Your task to perform on an android device: turn off translation in the chrome app Image 0: 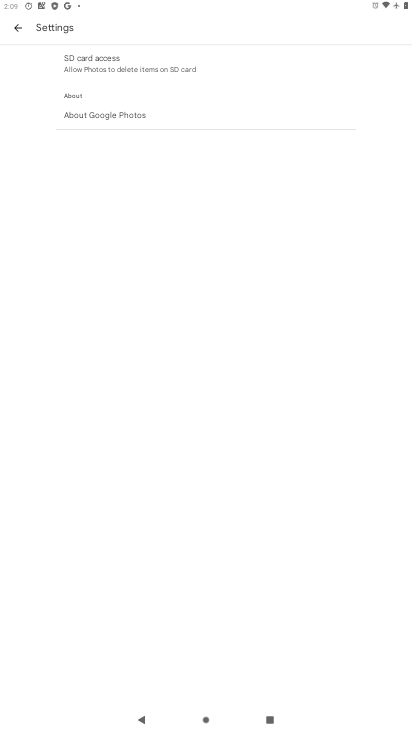
Step 0: press home button
Your task to perform on an android device: turn off translation in the chrome app Image 1: 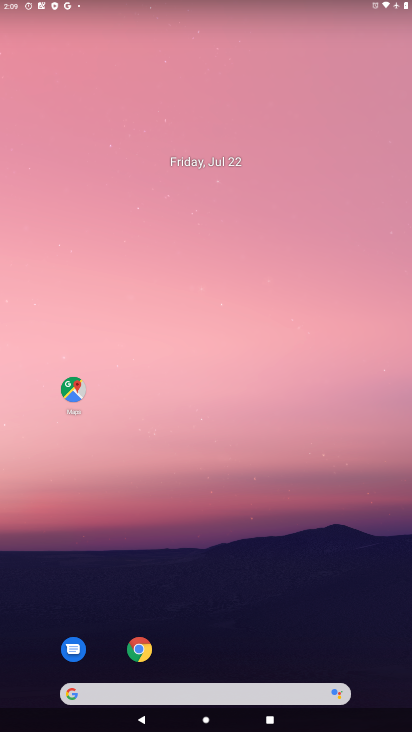
Step 1: drag from (279, 641) to (247, 69)
Your task to perform on an android device: turn off translation in the chrome app Image 2: 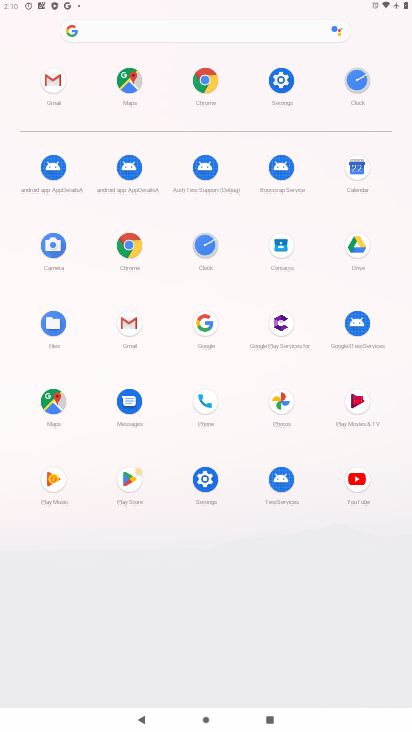
Step 2: click (203, 80)
Your task to perform on an android device: turn off translation in the chrome app Image 3: 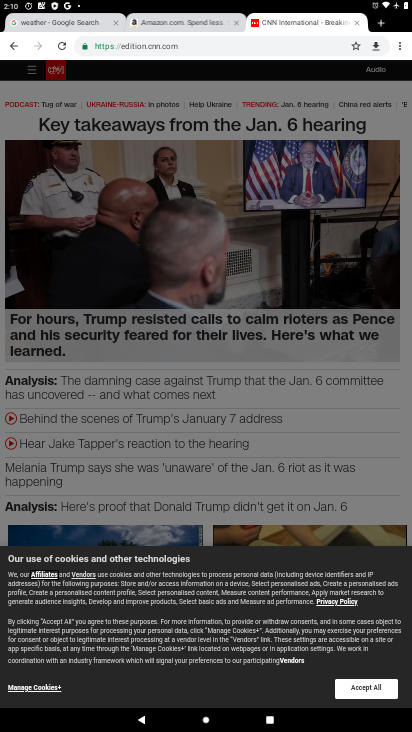
Step 3: drag from (399, 44) to (313, 311)
Your task to perform on an android device: turn off translation in the chrome app Image 4: 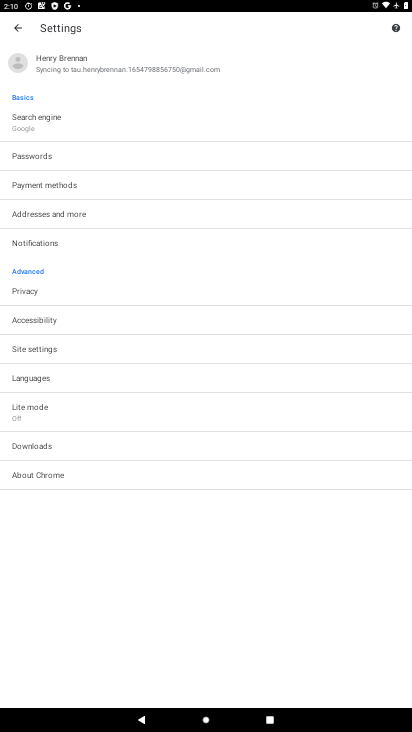
Step 4: click (48, 384)
Your task to perform on an android device: turn off translation in the chrome app Image 5: 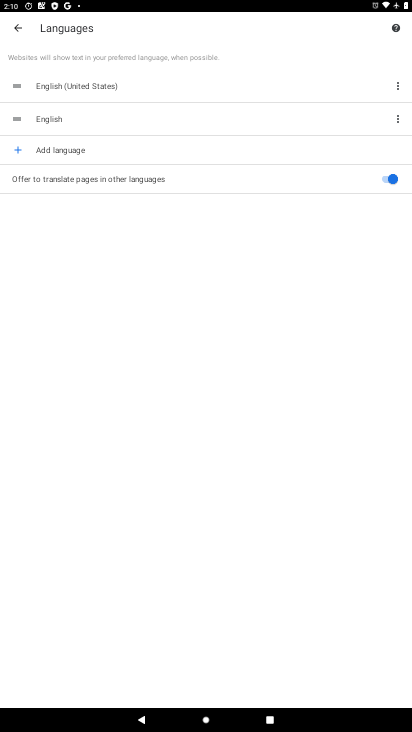
Step 5: click (393, 165)
Your task to perform on an android device: turn off translation in the chrome app Image 6: 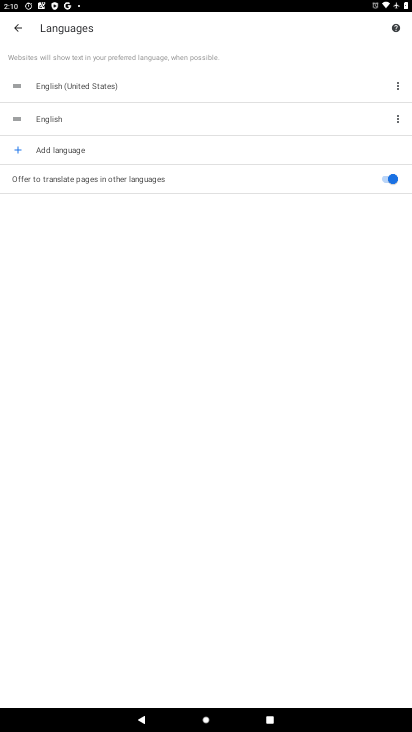
Step 6: click (400, 173)
Your task to perform on an android device: turn off translation in the chrome app Image 7: 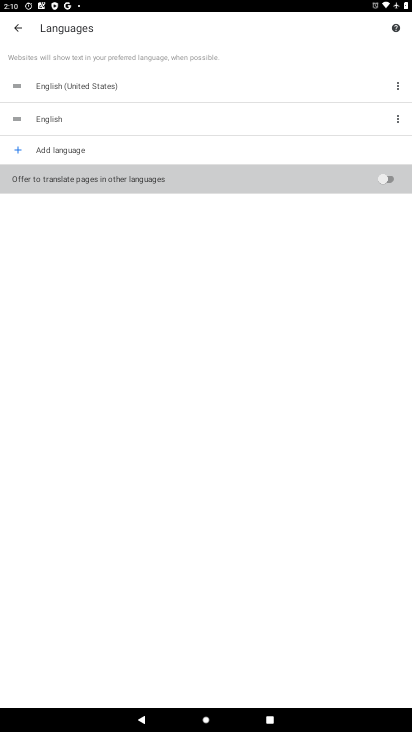
Step 7: click (393, 176)
Your task to perform on an android device: turn off translation in the chrome app Image 8: 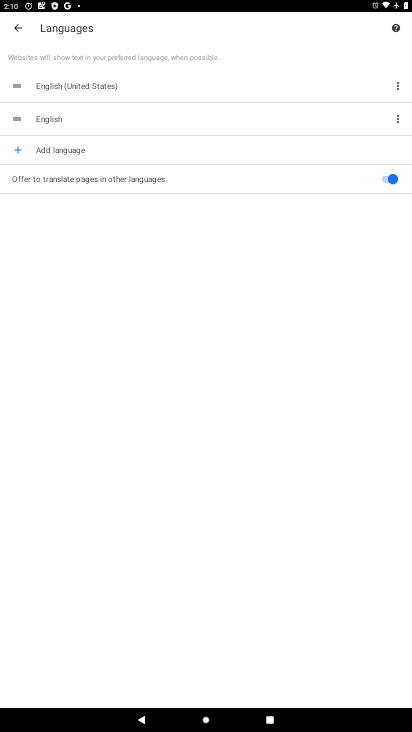
Step 8: click (394, 174)
Your task to perform on an android device: turn off translation in the chrome app Image 9: 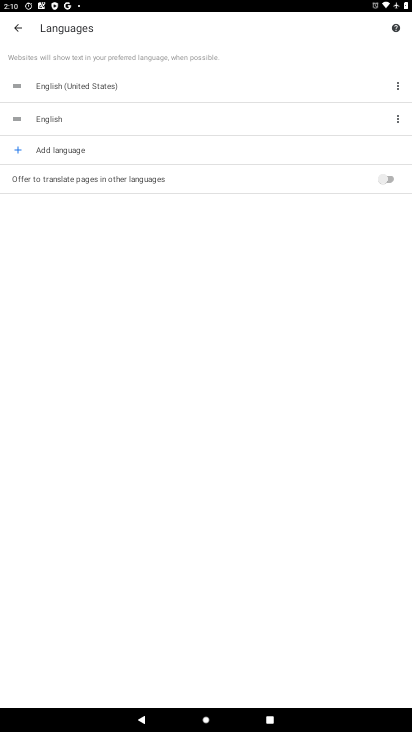
Step 9: task complete